Your task to perform on an android device: What's on my calendar today? Image 0: 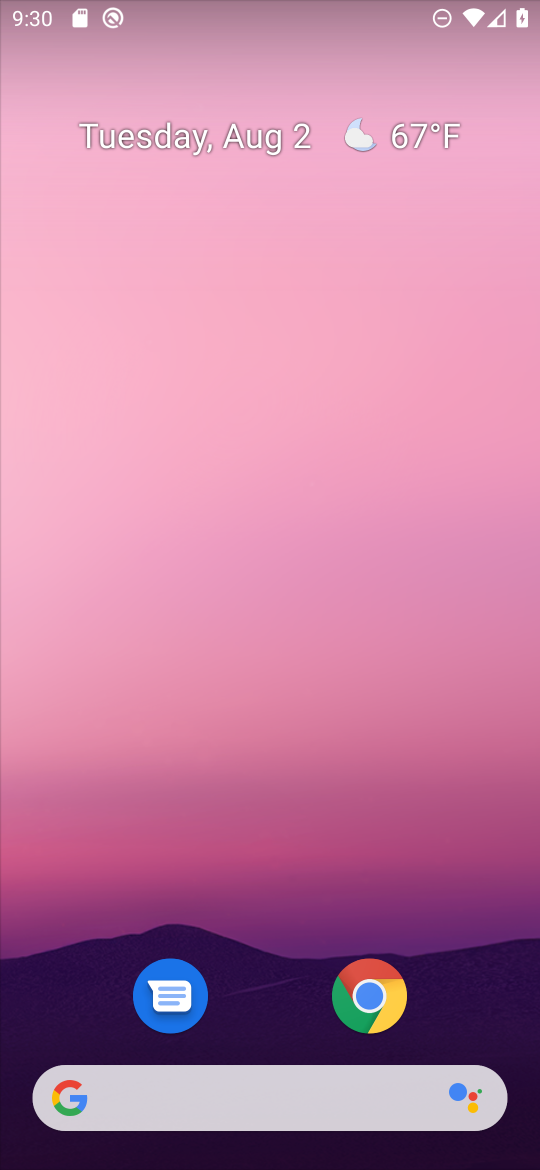
Step 0: drag from (290, 1005) to (314, 41)
Your task to perform on an android device: What's on my calendar today? Image 1: 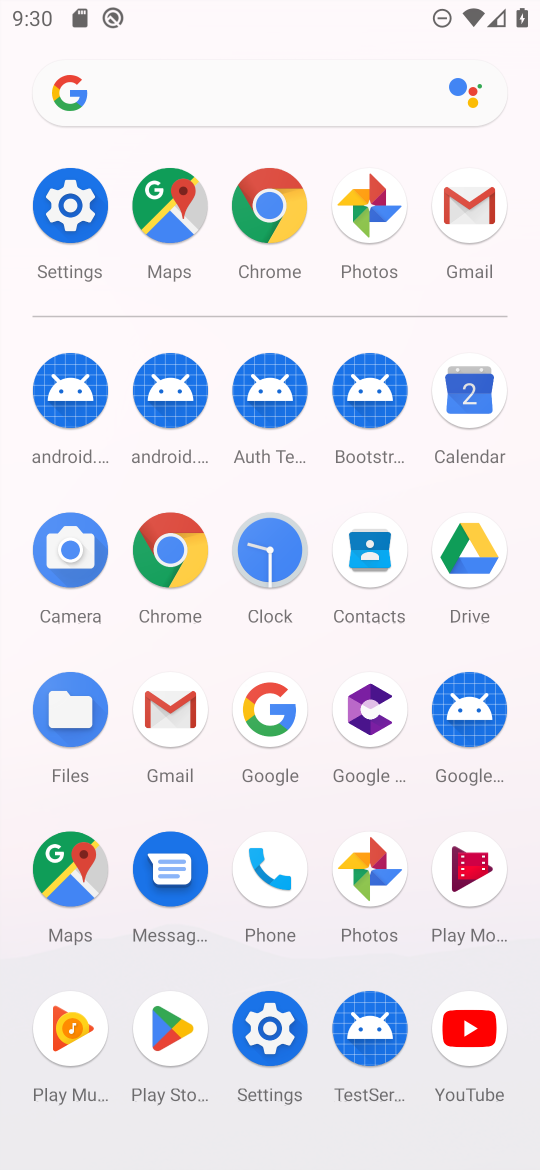
Step 1: click (462, 396)
Your task to perform on an android device: What's on my calendar today? Image 2: 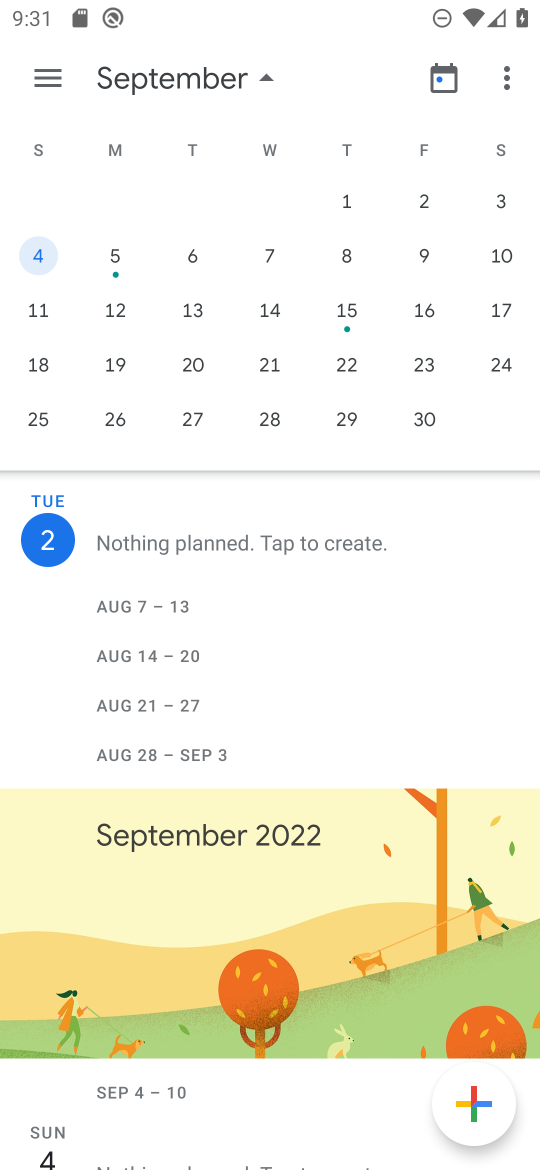
Step 2: click (503, 200)
Your task to perform on an android device: What's on my calendar today? Image 3: 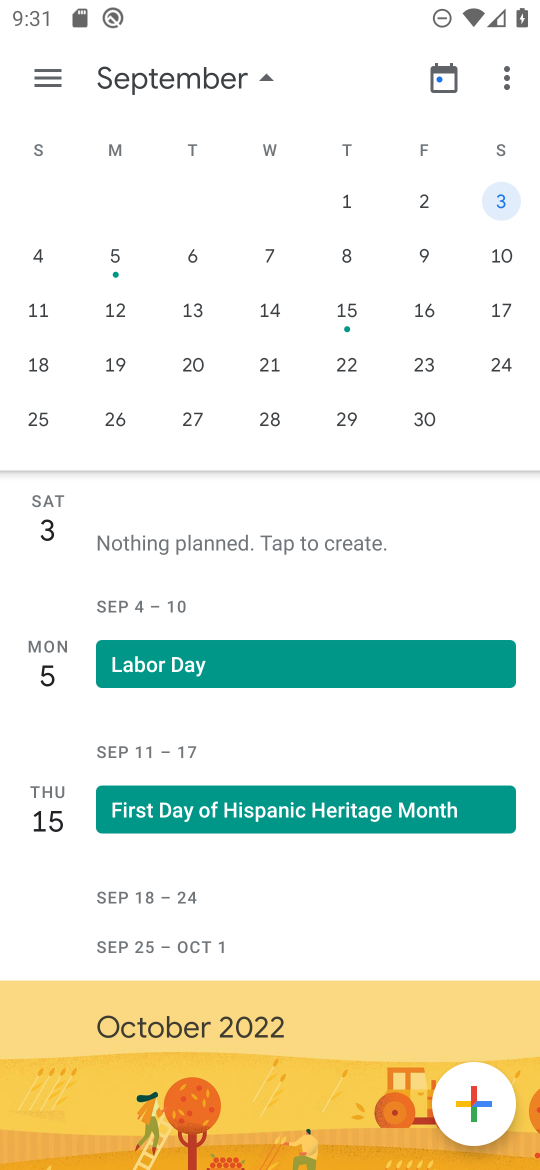
Step 3: task complete